Your task to perform on an android device: Open the calendar and show me this week's events Image 0: 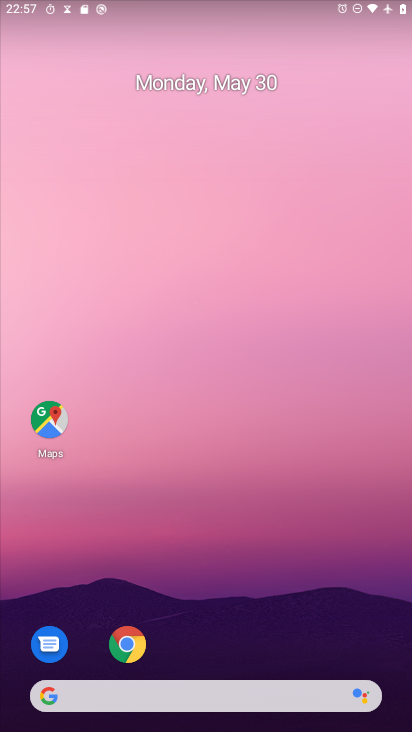
Step 0: drag from (295, 627) to (340, 2)
Your task to perform on an android device: Open the calendar and show me this week's events Image 1: 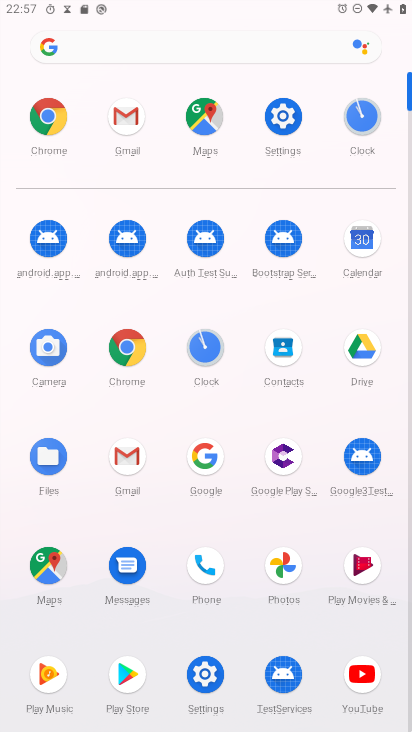
Step 1: click (360, 239)
Your task to perform on an android device: Open the calendar and show me this week's events Image 2: 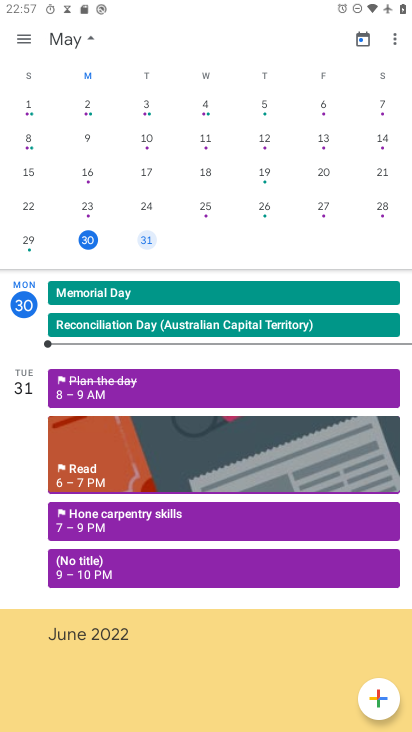
Step 2: click (151, 237)
Your task to perform on an android device: Open the calendar and show me this week's events Image 3: 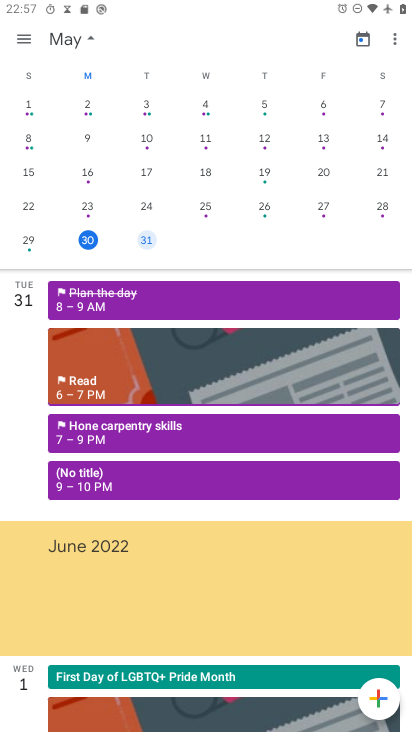
Step 3: task complete